Your task to perform on an android device: toggle wifi Image 0: 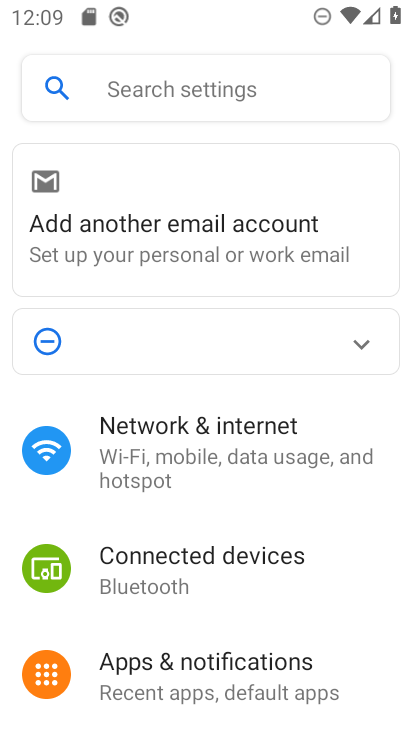
Step 0: press home button
Your task to perform on an android device: toggle wifi Image 1: 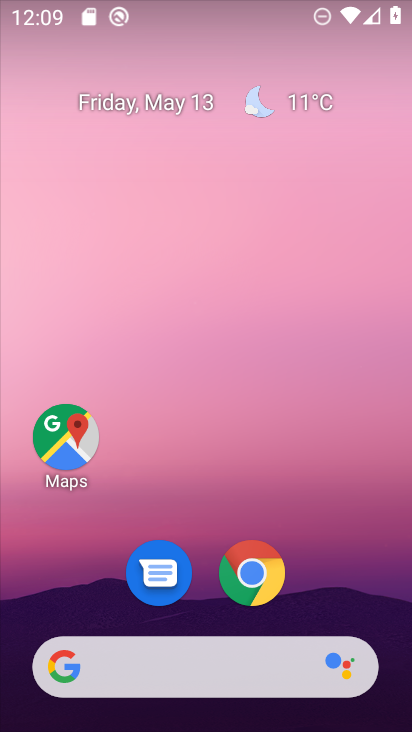
Step 1: drag from (229, 715) to (359, 138)
Your task to perform on an android device: toggle wifi Image 2: 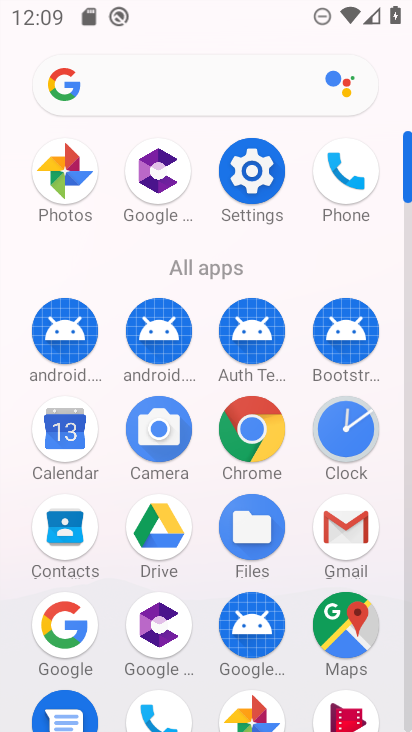
Step 2: click (253, 187)
Your task to perform on an android device: toggle wifi Image 3: 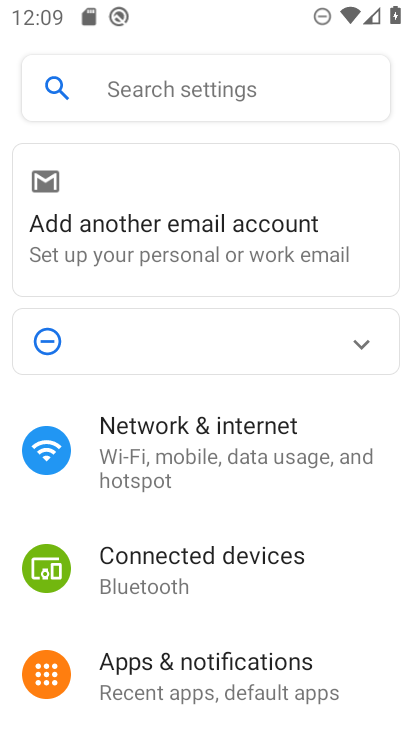
Step 3: click (140, 427)
Your task to perform on an android device: toggle wifi Image 4: 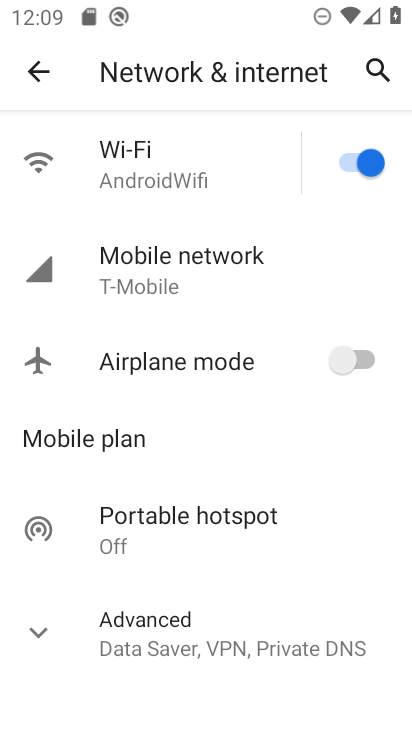
Step 4: click (140, 173)
Your task to perform on an android device: toggle wifi Image 5: 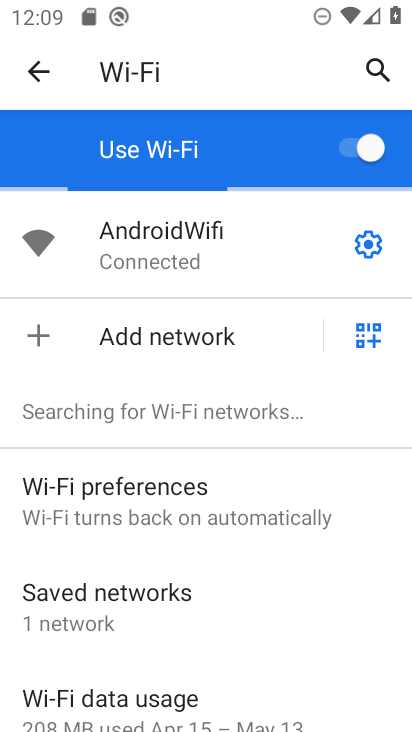
Step 5: task complete